Your task to perform on an android device: toggle sleep mode Image 0: 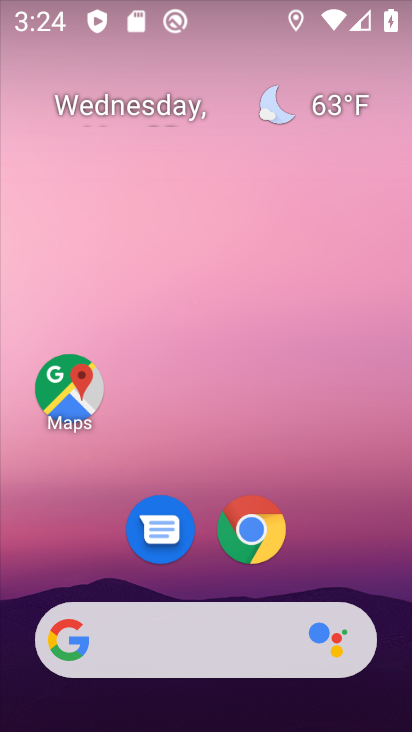
Step 0: drag from (89, 583) to (215, 165)
Your task to perform on an android device: toggle sleep mode Image 1: 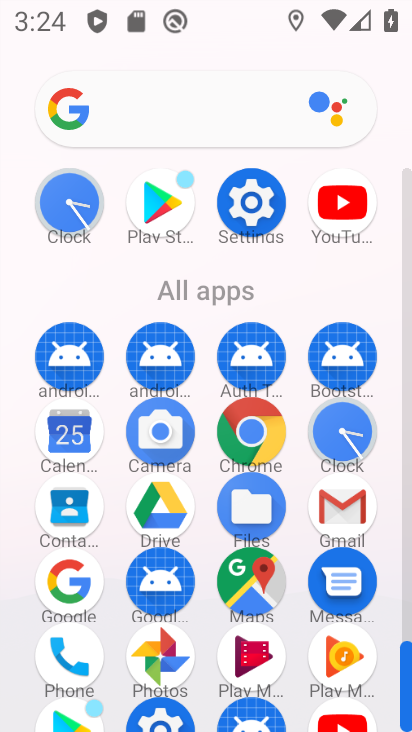
Step 1: drag from (177, 645) to (291, 360)
Your task to perform on an android device: toggle sleep mode Image 2: 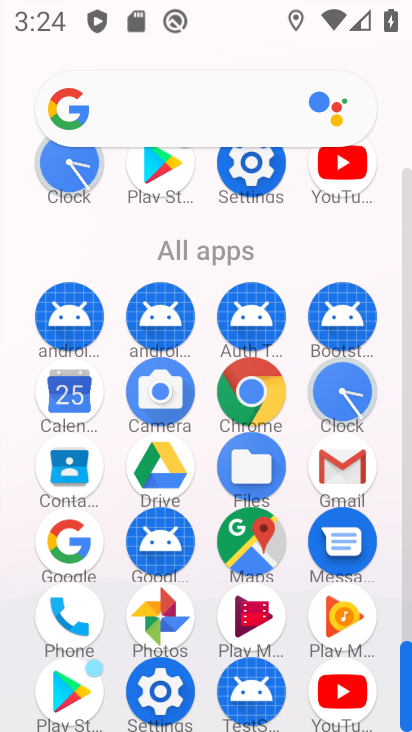
Step 2: click (169, 685)
Your task to perform on an android device: toggle sleep mode Image 3: 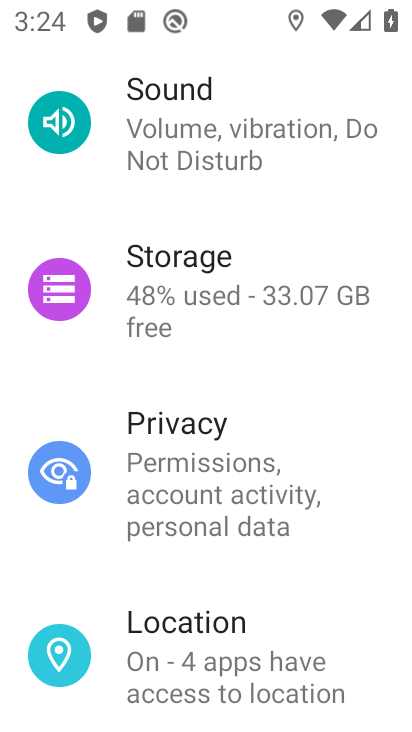
Step 3: drag from (187, 217) to (187, 634)
Your task to perform on an android device: toggle sleep mode Image 4: 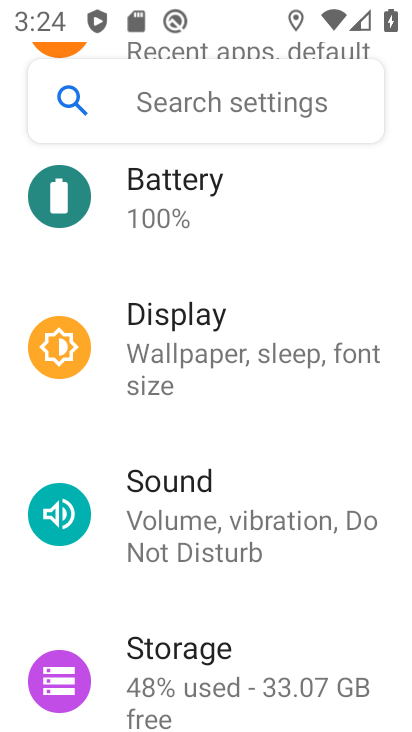
Step 4: click (194, 371)
Your task to perform on an android device: toggle sleep mode Image 5: 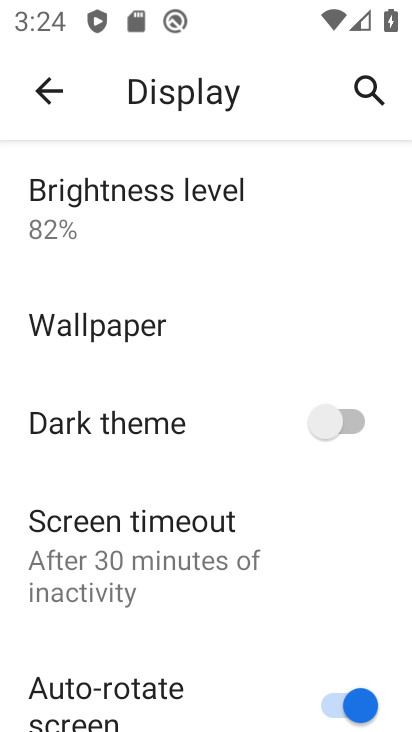
Step 5: drag from (172, 610) to (297, 226)
Your task to perform on an android device: toggle sleep mode Image 6: 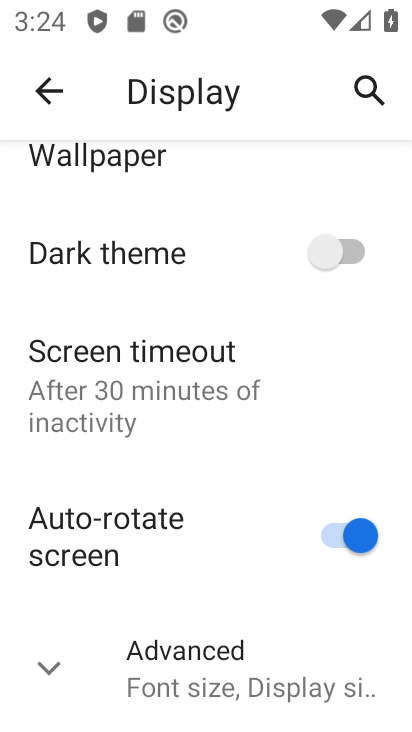
Step 6: click (193, 664)
Your task to perform on an android device: toggle sleep mode Image 7: 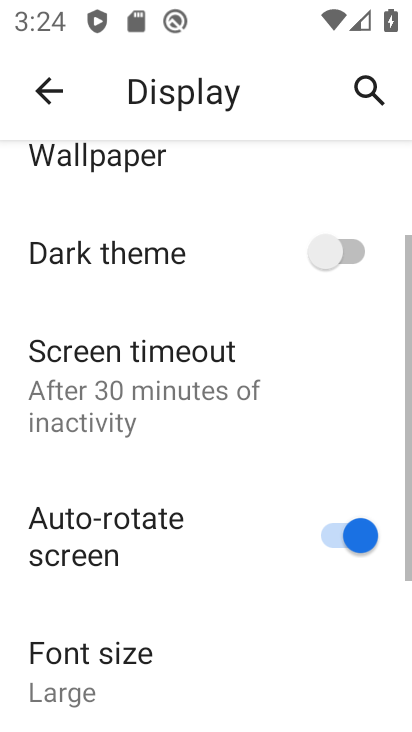
Step 7: task complete